Your task to perform on an android device: see creations saved in the google photos Image 0: 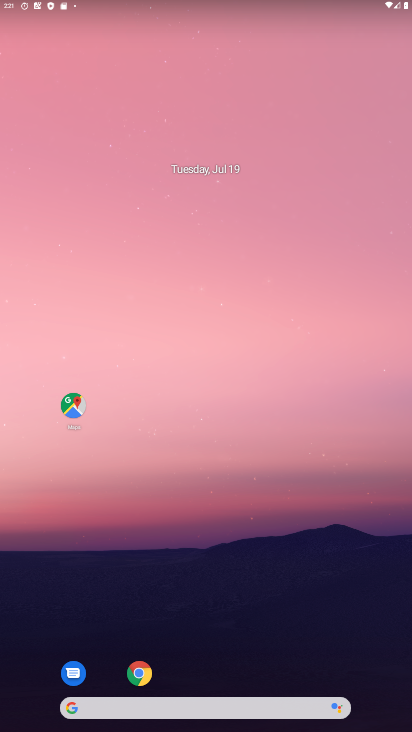
Step 0: drag from (208, 646) to (175, 0)
Your task to perform on an android device: see creations saved in the google photos Image 1: 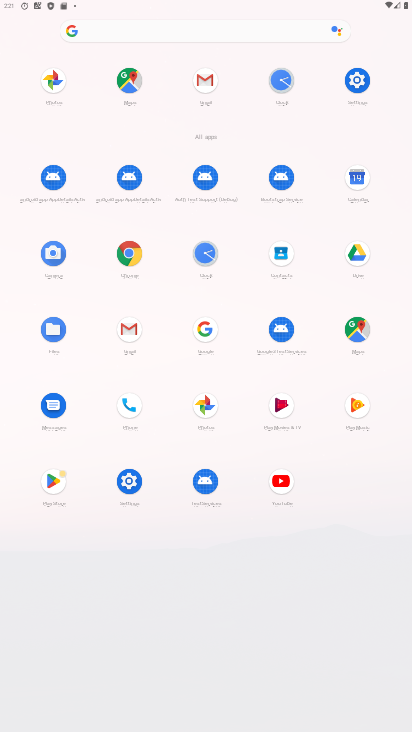
Step 1: click (210, 407)
Your task to perform on an android device: see creations saved in the google photos Image 2: 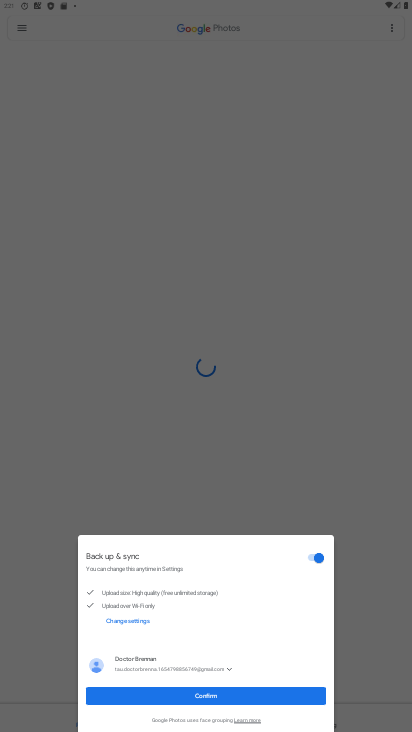
Step 2: click (224, 699)
Your task to perform on an android device: see creations saved in the google photos Image 3: 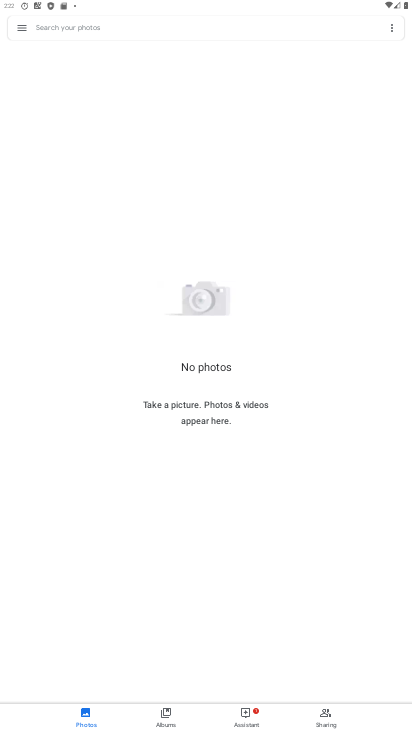
Step 3: click (165, 30)
Your task to perform on an android device: see creations saved in the google photos Image 4: 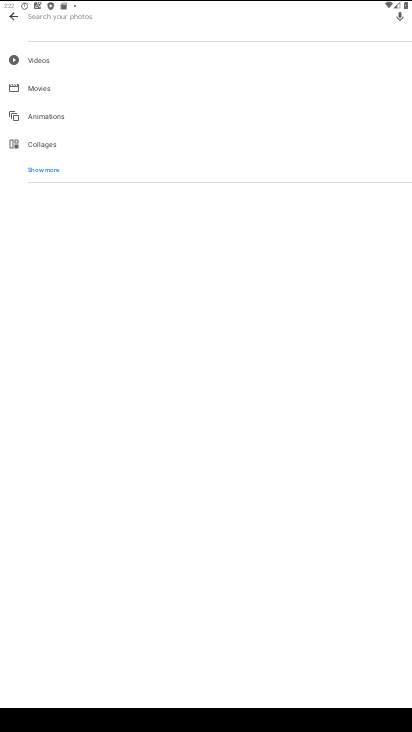
Step 4: type "creations"
Your task to perform on an android device: see creations saved in the google photos Image 5: 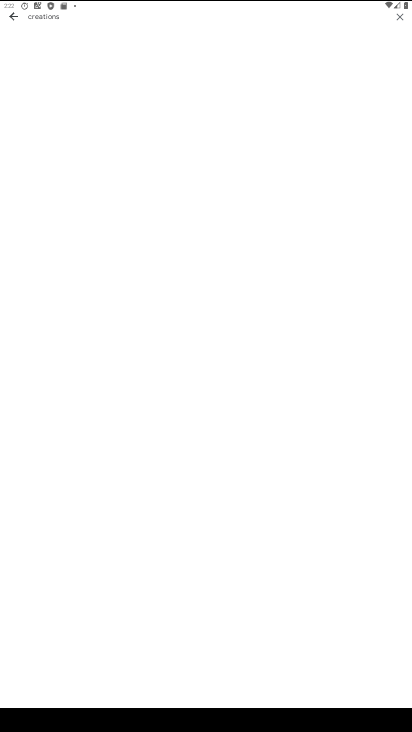
Step 5: click (171, 129)
Your task to perform on an android device: see creations saved in the google photos Image 6: 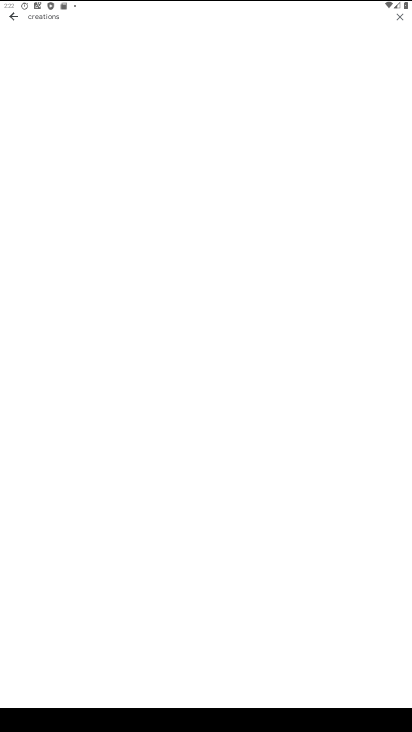
Step 6: task complete